Your task to perform on an android device: Check the news Image 0: 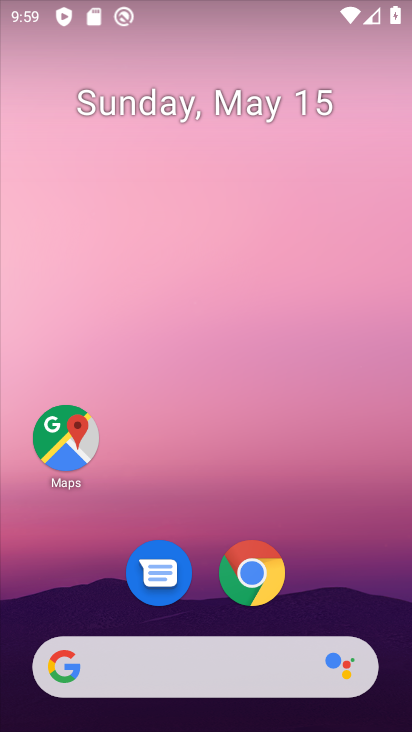
Step 0: click (250, 573)
Your task to perform on an android device: Check the news Image 1: 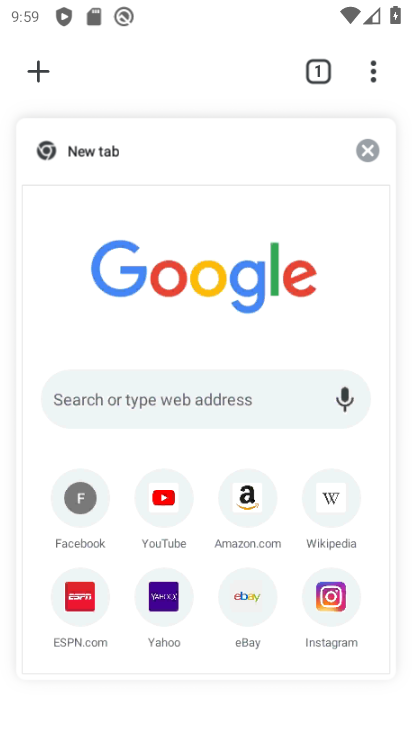
Step 1: click (172, 323)
Your task to perform on an android device: Check the news Image 2: 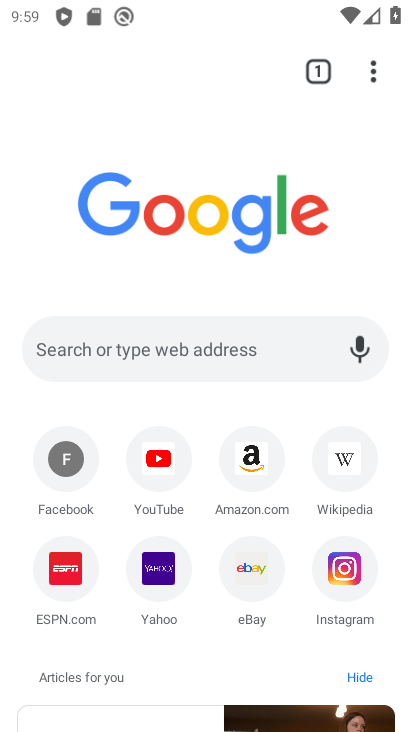
Step 2: click (119, 347)
Your task to perform on an android device: Check the news Image 3: 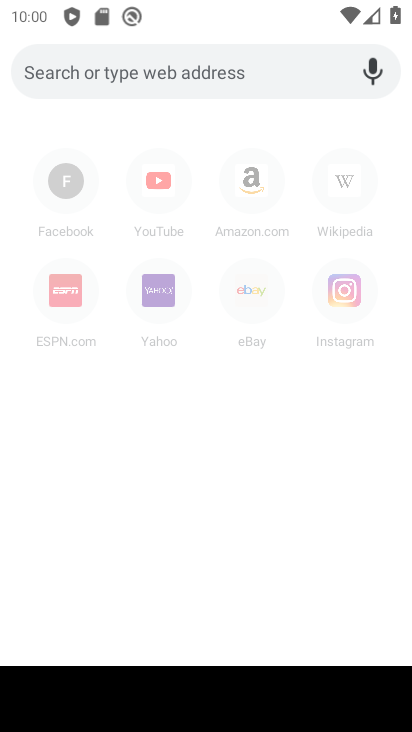
Step 3: type "news"
Your task to perform on an android device: Check the news Image 4: 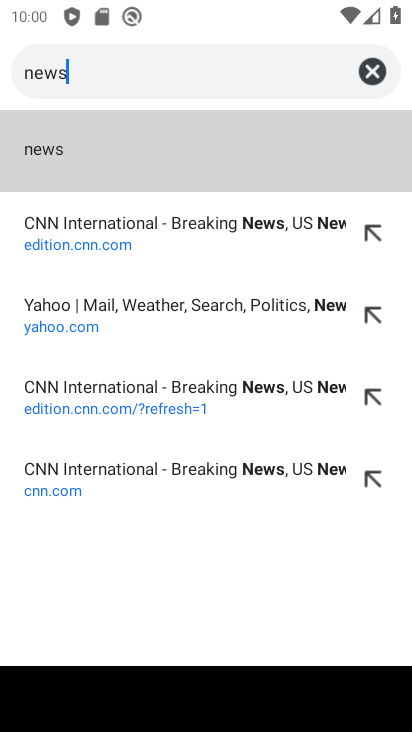
Step 4: click (98, 157)
Your task to perform on an android device: Check the news Image 5: 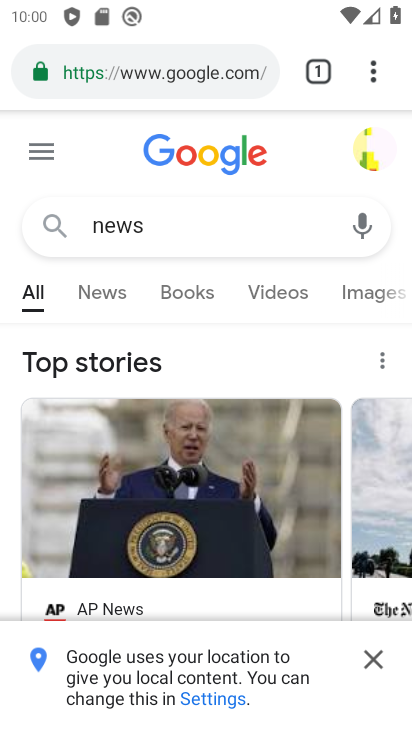
Step 5: task complete